Your task to perform on an android device: turn pop-ups on in chrome Image 0: 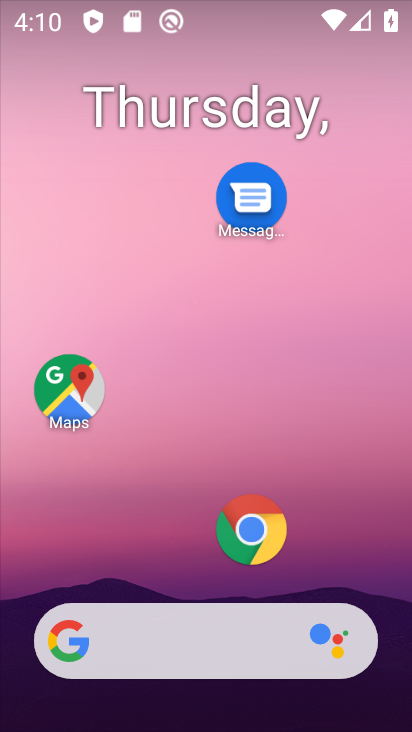
Step 0: click (243, 529)
Your task to perform on an android device: turn pop-ups on in chrome Image 1: 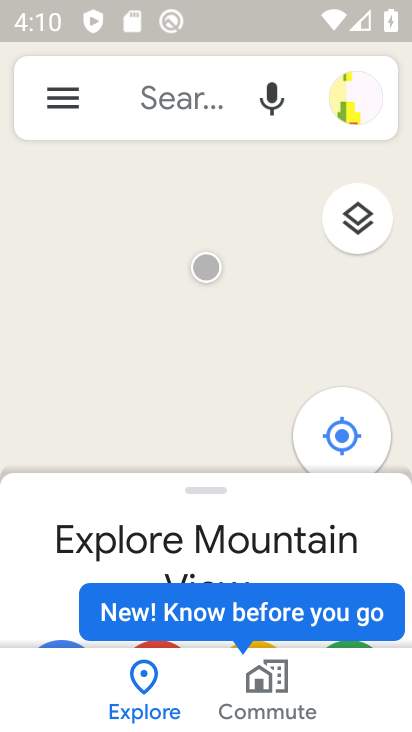
Step 1: press back button
Your task to perform on an android device: turn pop-ups on in chrome Image 2: 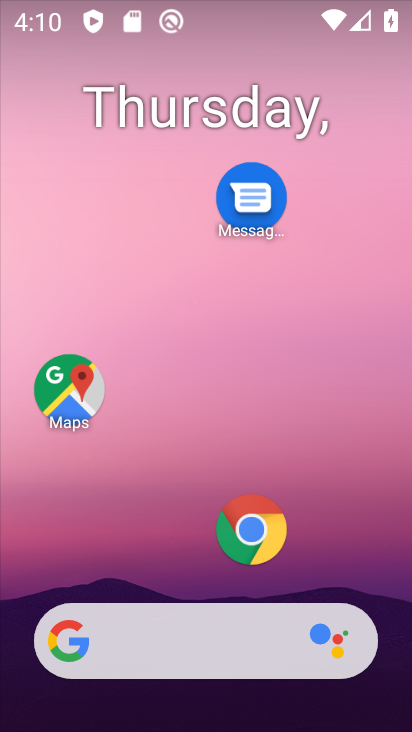
Step 2: click (251, 522)
Your task to perform on an android device: turn pop-ups on in chrome Image 3: 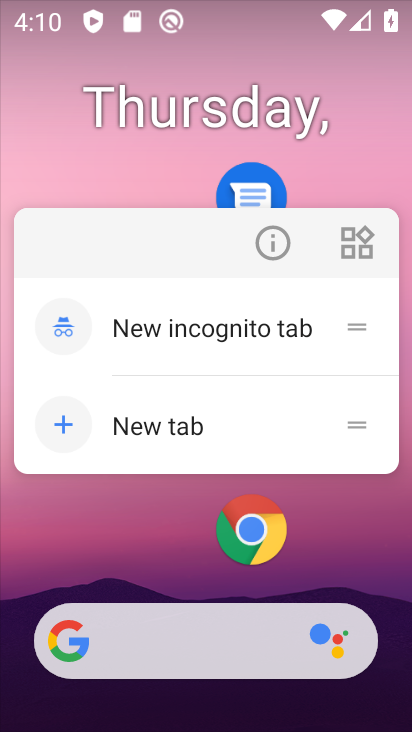
Step 3: click (247, 517)
Your task to perform on an android device: turn pop-ups on in chrome Image 4: 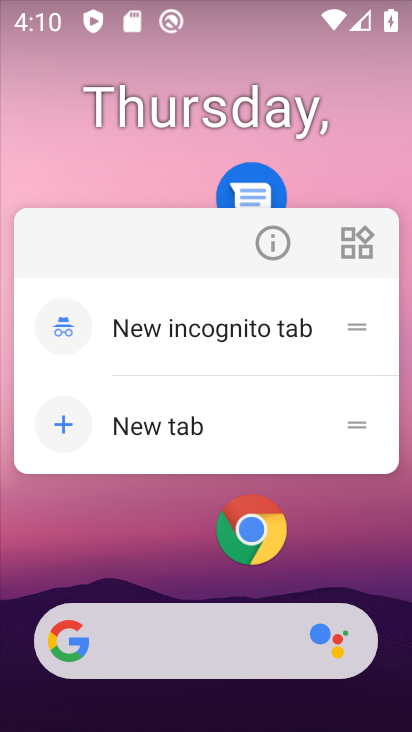
Step 4: click (252, 531)
Your task to perform on an android device: turn pop-ups on in chrome Image 5: 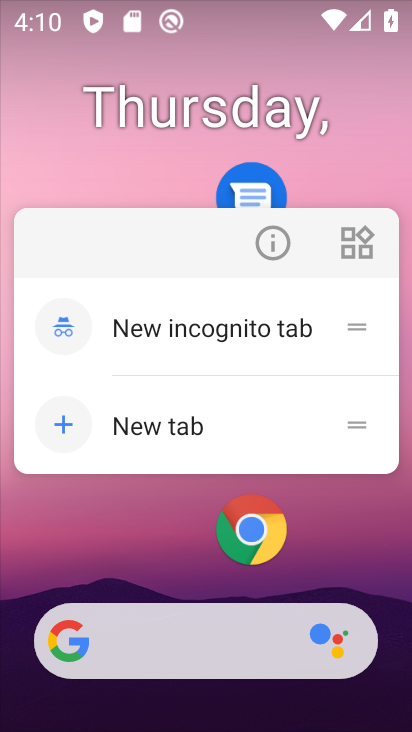
Step 5: click (252, 531)
Your task to perform on an android device: turn pop-ups on in chrome Image 6: 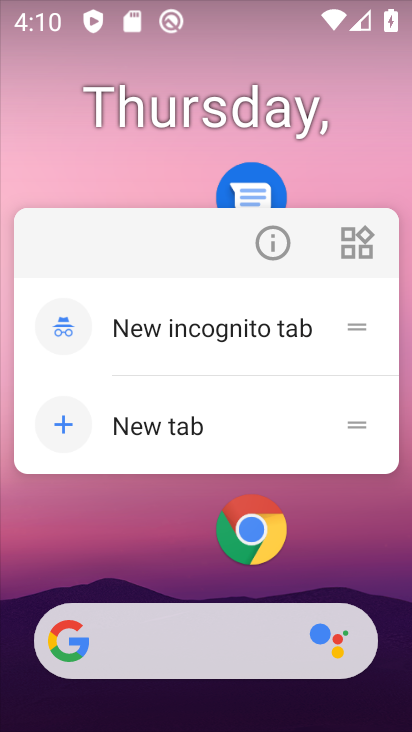
Step 6: click (258, 525)
Your task to perform on an android device: turn pop-ups on in chrome Image 7: 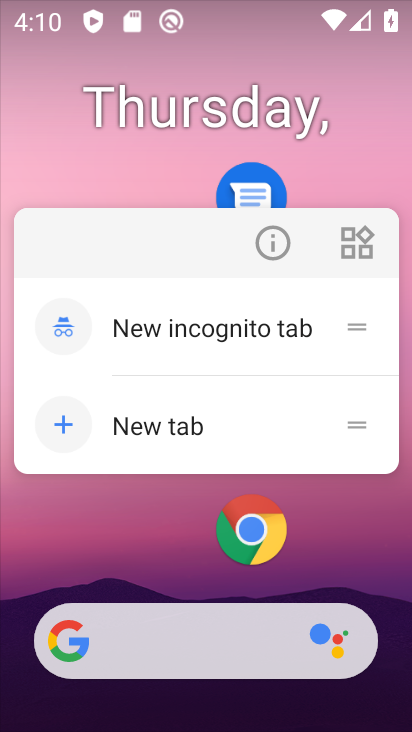
Step 7: click (250, 536)
Your task to perform on an android device: turn pop-ups on in chrome Image 8: 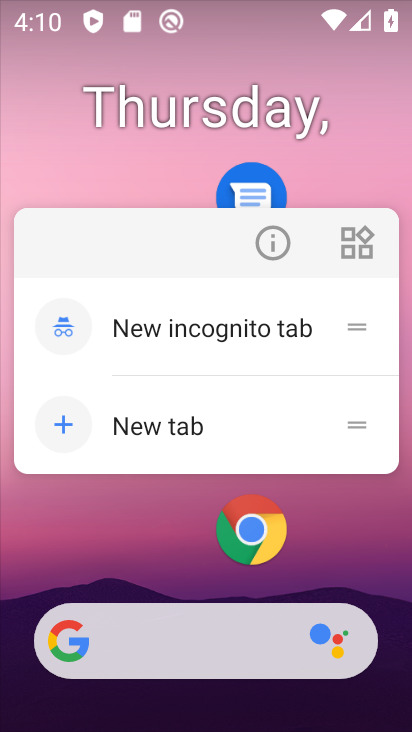
Step 8: click (255, 521)
Your task to perform on an android device: turn pop-ups on in chrome Image 9: 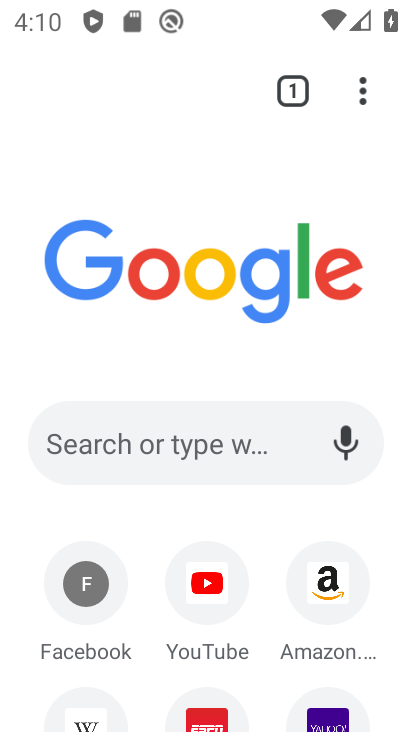
Step 9: click (364, 84)
Your task to perform on an android device: turn pop-ups on in chrome Image 10: 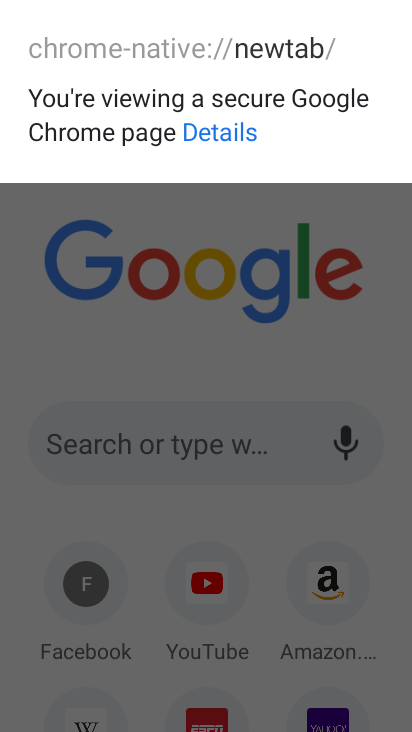
Step 10: click (304, 248)
Your task to perform on an android device: turn pop-ups on in chrome Image 11: 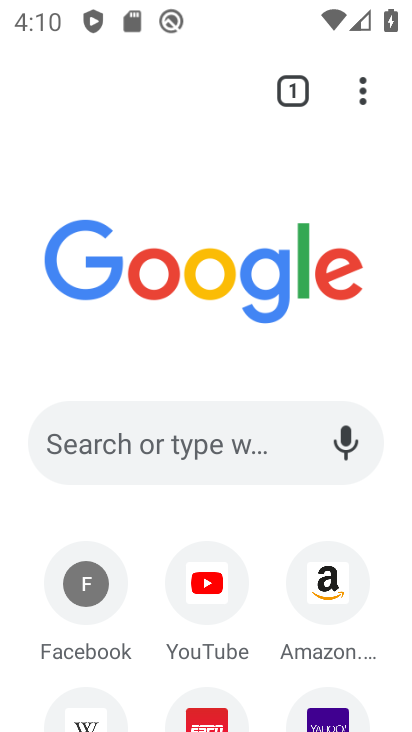
Step 11: drag from (367, 86) to (163, 563)
Your task to perform on an android device: turn pop-ups on in chrome Image 12: 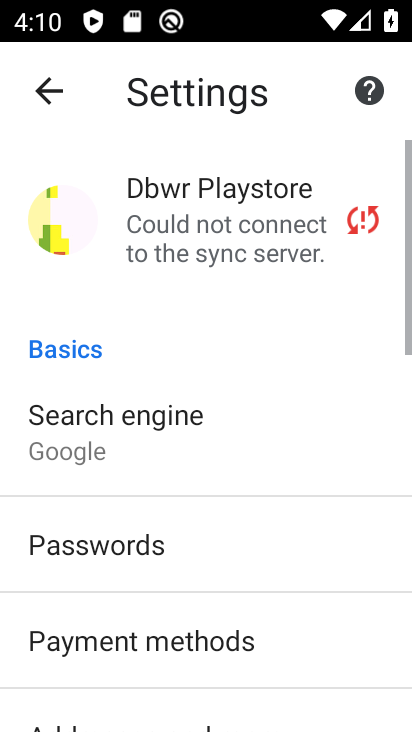
Step 12: drag from (153, 621) to (320, 29)
Your task to perform on an android device: turn pop-ups on in chrome Image 13: 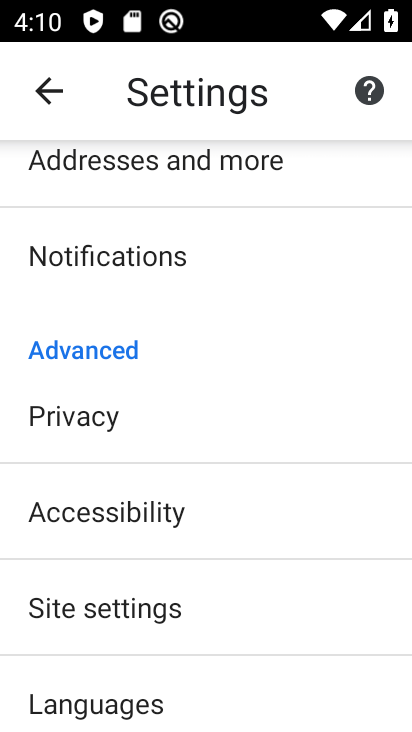
Step 13: click (144, 633)
Your task to perform on an android device: turn pop-ups on in chrome Image 14: 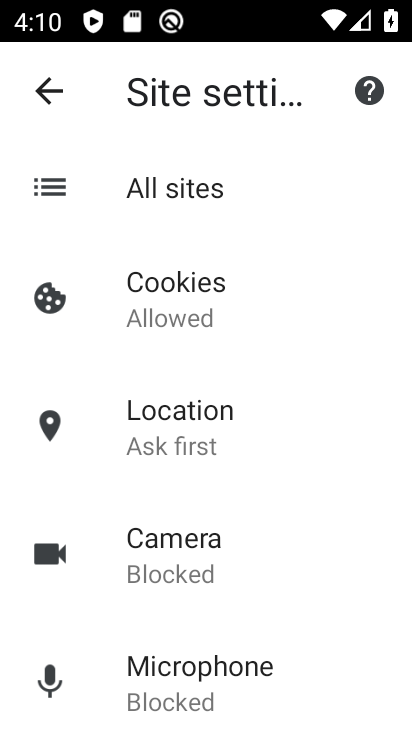
Step 14: drag from (231, 629) to (347, 107)
Your task to perform on an android device: turn pop-ups on in chrome Image 15: 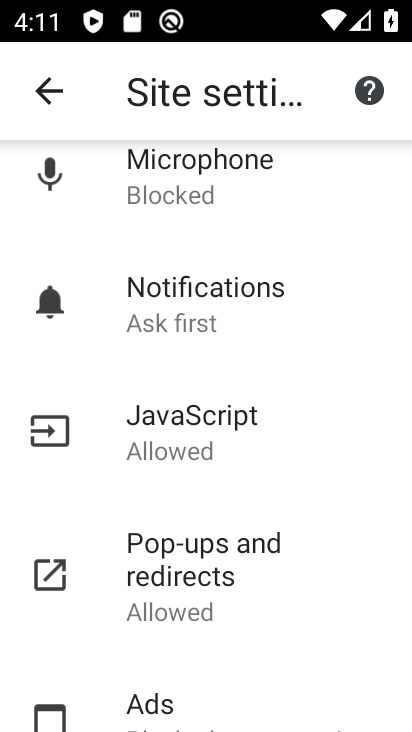
Step 15: click (234, 573)
Your task to perform on an android device: turn pop-ups on in chrome Image 16: 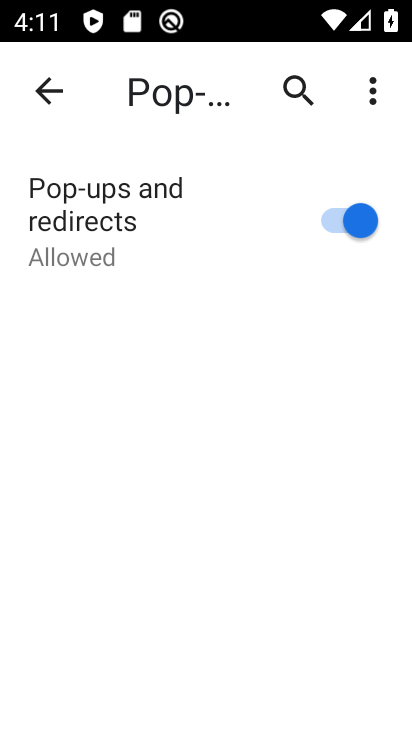
Step 16: task complete